Your task to perform on an android device: Search for Italian restaurants on Maps Image 0: 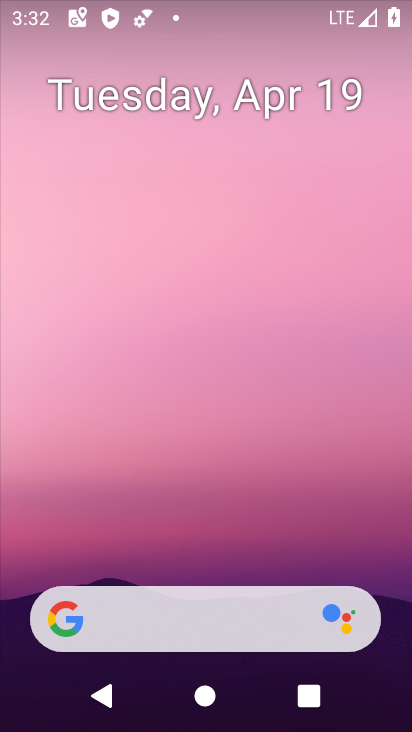
Step 0: drag from (228, 558) to (265, 37)
Your task to perform on an android device: Search for Italian restaurants on Maps Image 1: 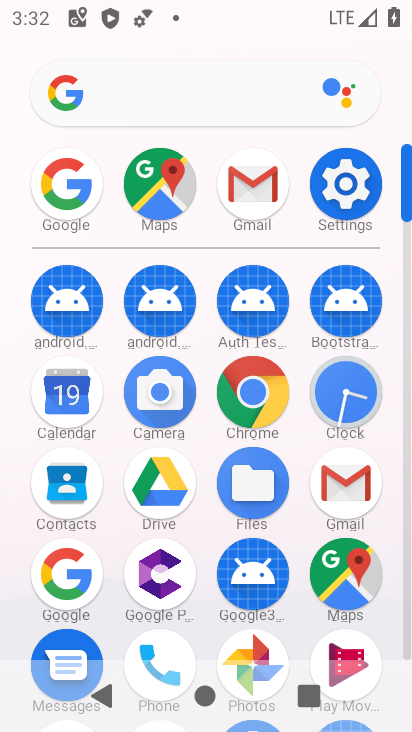
Step 1: click (166, 190)
Your task to perform on an android device: Search for Italian restaurants on Maps Image 2: 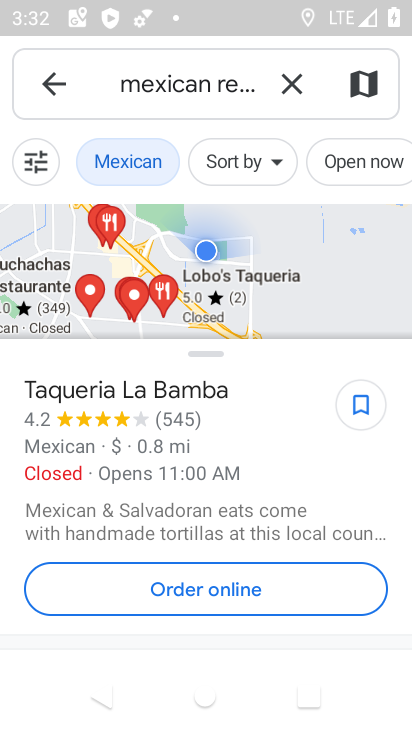
Step 2: click (295, 85)
Your task to perform on an android device: Search for Italian restaurants on Maps Image 3: 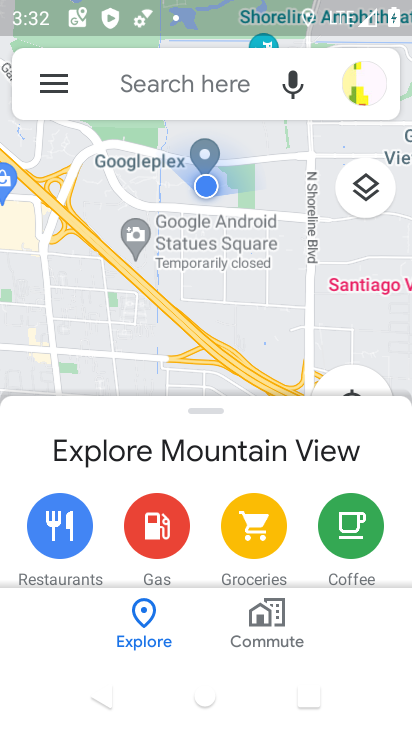
Step 3: click (202, 88)
Your task to perform on an android device: Search for Italian restaurants on Maps Image 4: 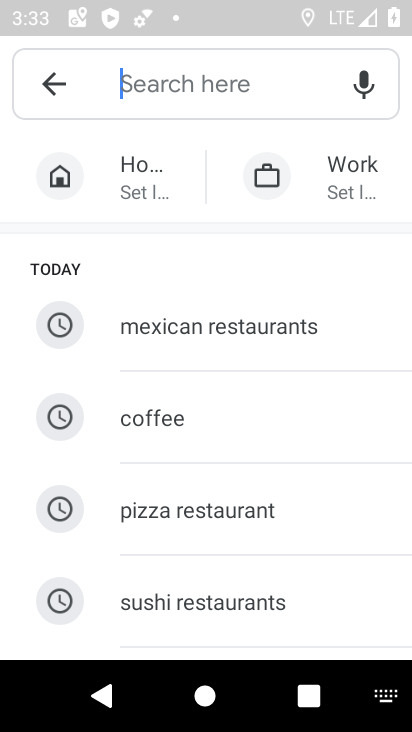
Step 4: type "Italian restaurants"
Your task to perform on an android device: Search for Italian restaurants on Maps Image 5: 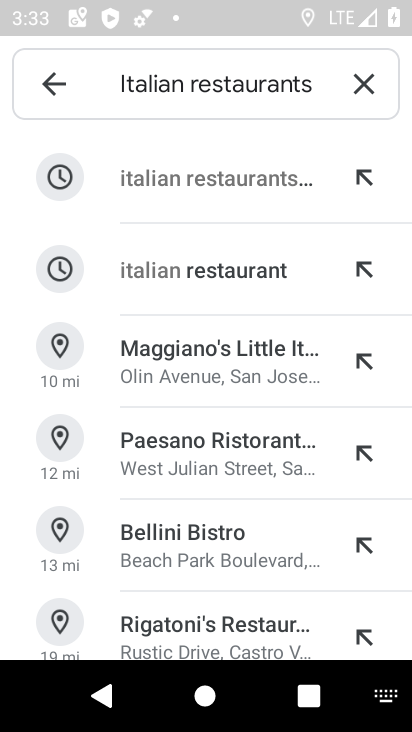
Step 5: click (219, 272)
Your task to perform on an android device: Search for Italian restaurants on Maps Image 6: 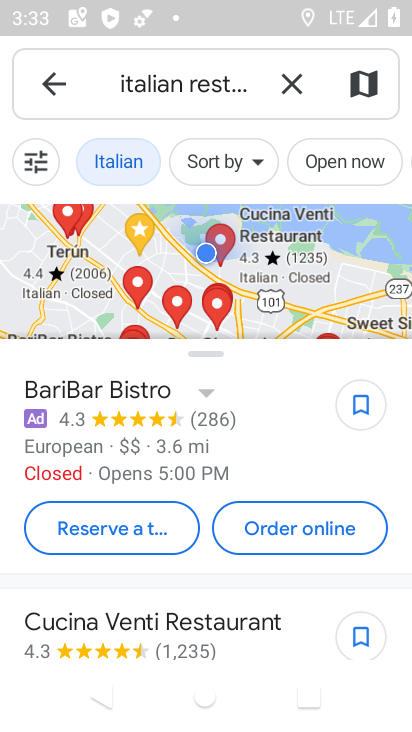
Step 6: drag from (206, 583) to (272, 277)
Your task to perform on an android device: Search for Italian restaurants on Maps Image 7: 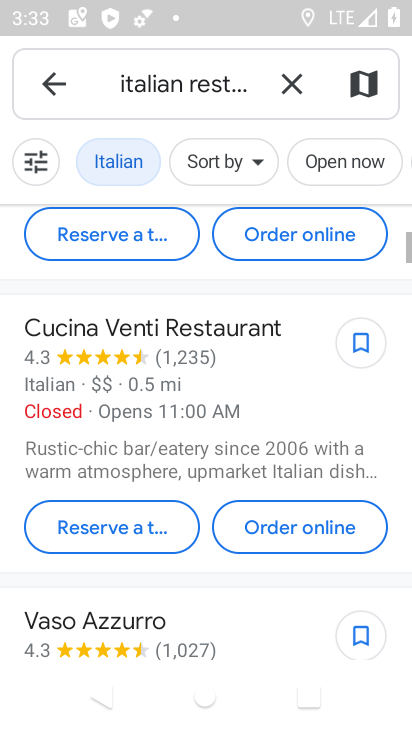
Step 7: click (269, 374)
Your task to perform on an android device: Search for Italian restaurants on Maps Image 8: 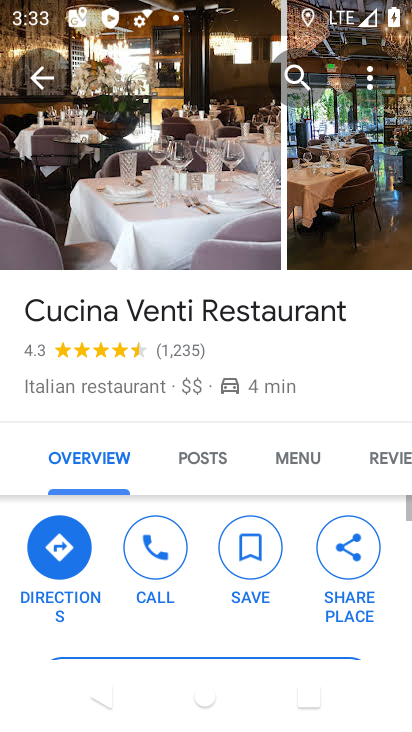
Step 8: task complete